Your task to perform on an android device: Open calendar and show me the second week of next month Image 0: 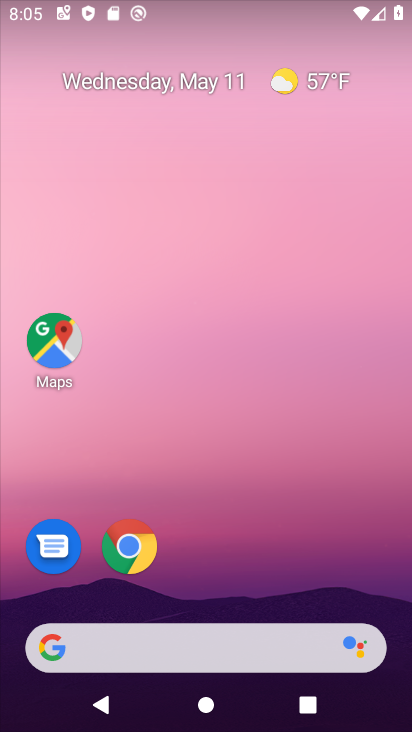
Step 0: drag from (199, 583) to (204, 200)
Your task to perform on an android device: Open calendar and show me the second week of next month Image 1: 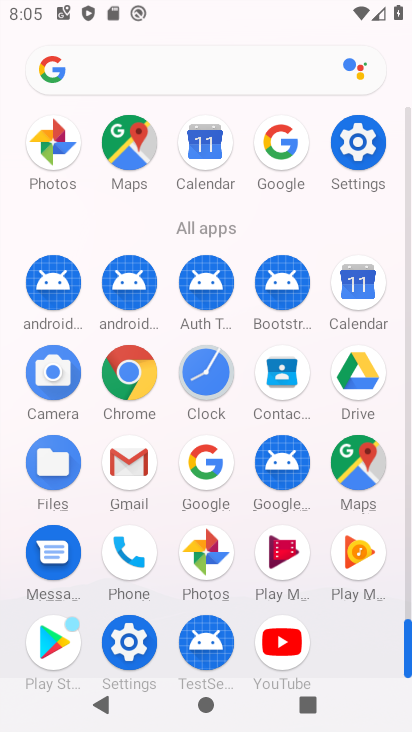
Step 1: click (352, 298)
Your task to perform on an android device: Open calendar and show me the second week of next month Image 2: 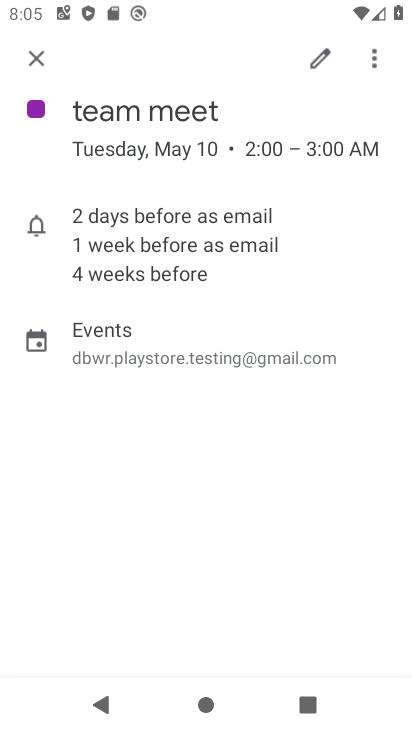
Step 2: click (37, 52)
Your task to perform on an android device: Open calendar and show me the second week of next month Image 3: 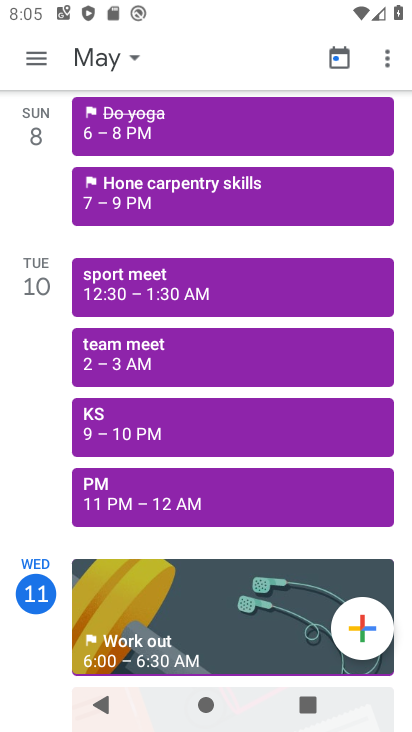
Step 3: click (133, 63)
Your task to perform on an android device: Open calendar and show me the second week of next month Image 4: 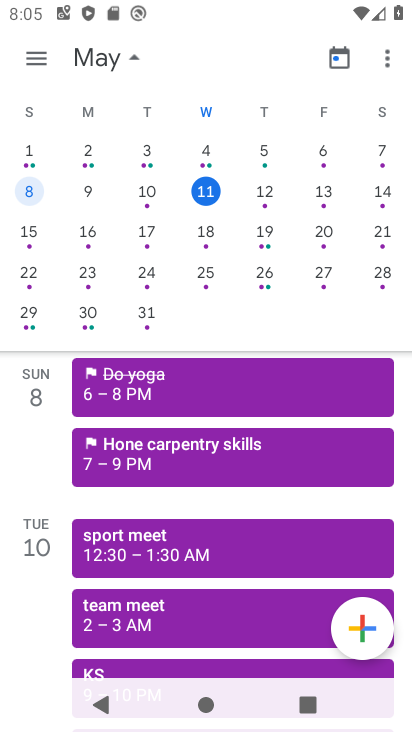
Step 4: drag from (363, 191) to (27, 172)
Your task to perform on an android device: Open calendar and show me the second week of next month Image 5: 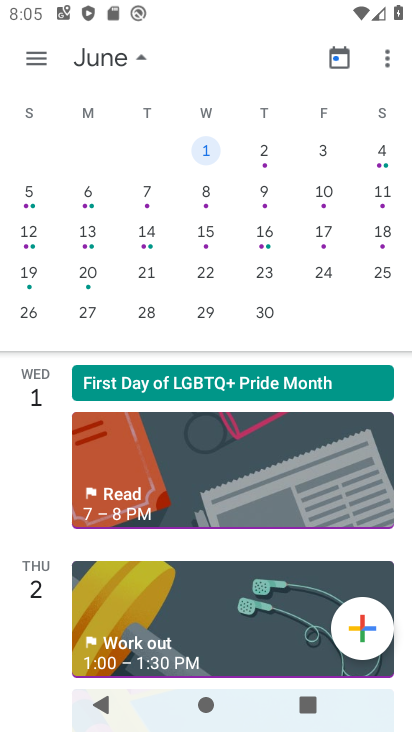
Step 5: click (20, 189)
Your task to perform on an android device: Open calendar and show me the second week of next month Image 6: 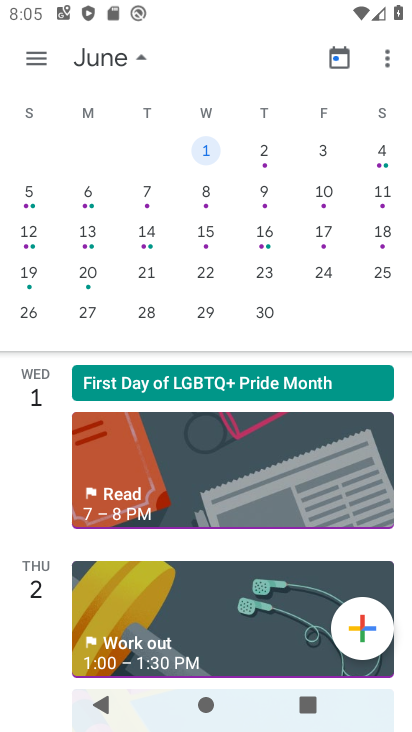
Step 6: click (86, 191)
Your task to perform on an android device: Open calendar and show me the second week of next month Image 7: 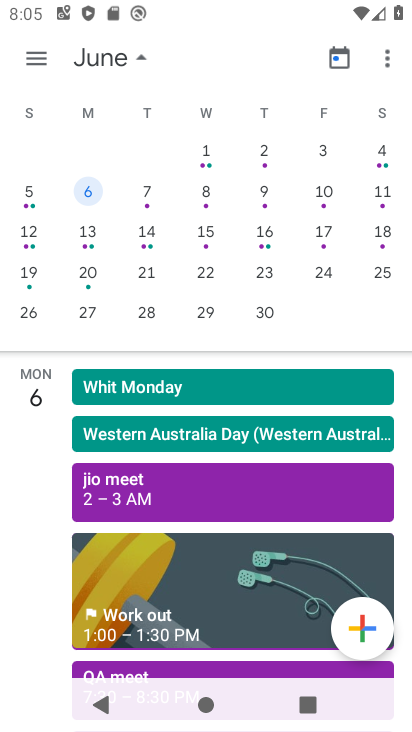
Step 7: task complete